Your task to perform on an android device: Open Google Chrome Image 0: 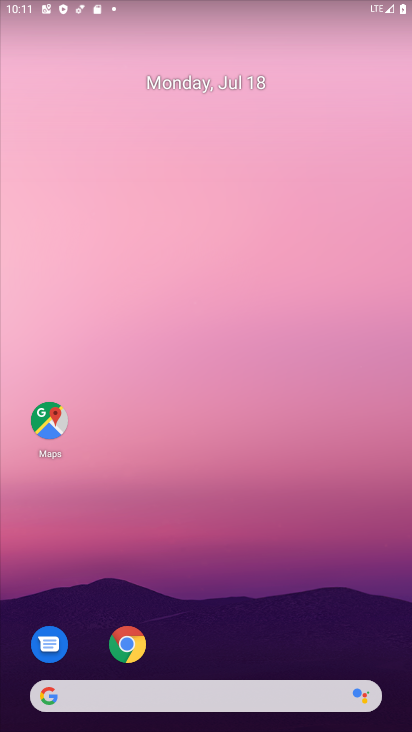
Step 0: drag from (359, 600) to (351, 137)
Your task to perform on an android device: Open Google Chrome Image 1: 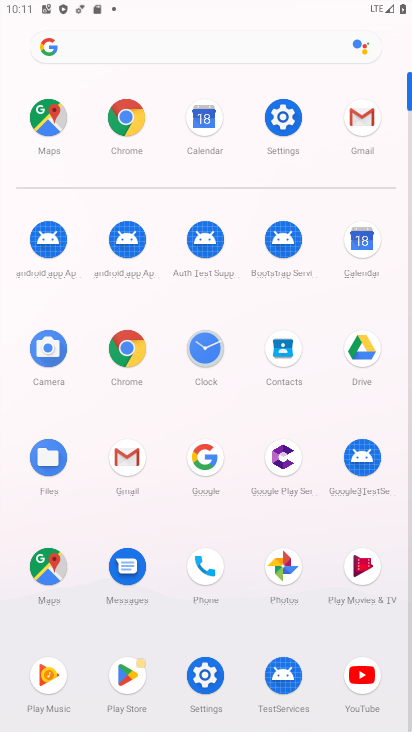
Step 1: click (132, 350)
Your task to perform on an android device: Open Google Chrome Image 2: 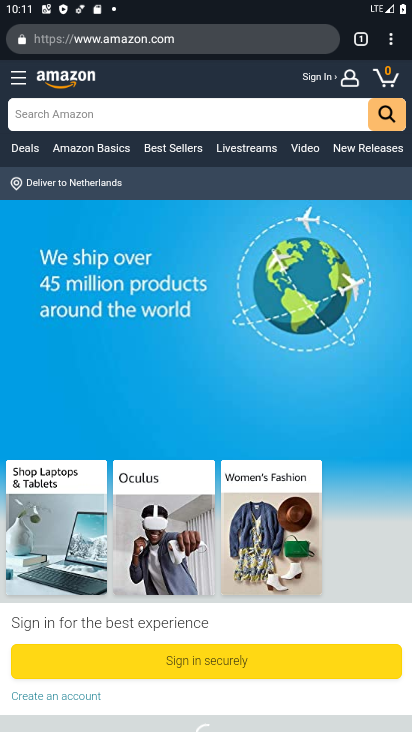
Step 2: task complete